Your task to perform on an android device: stop showing notifications on the lock screen Image 0: 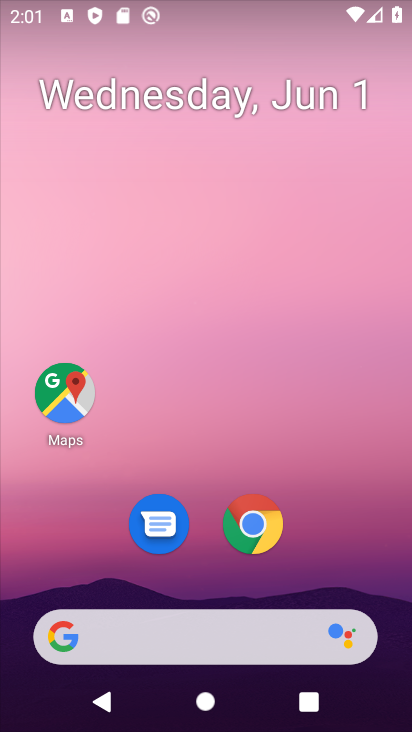
Step 0: drag from (317, 551) to (286, 37)
Your task to perform on an android device: stop showing notifications on the lock screen Image 1: 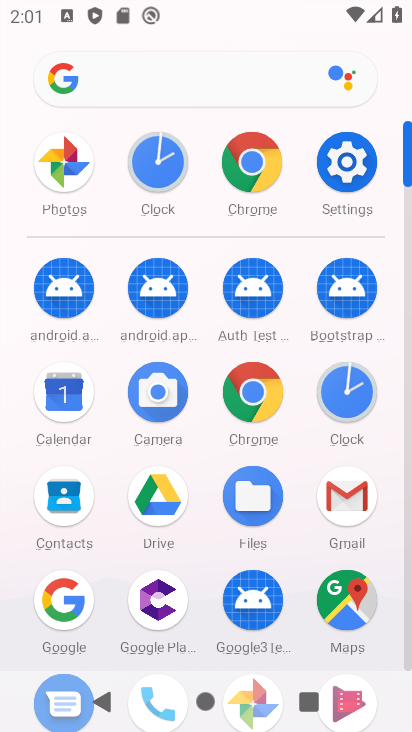
Step 1: click (343, 150)
Your task to perform on an android device: stop showing notifications on the lock screen Image 2: 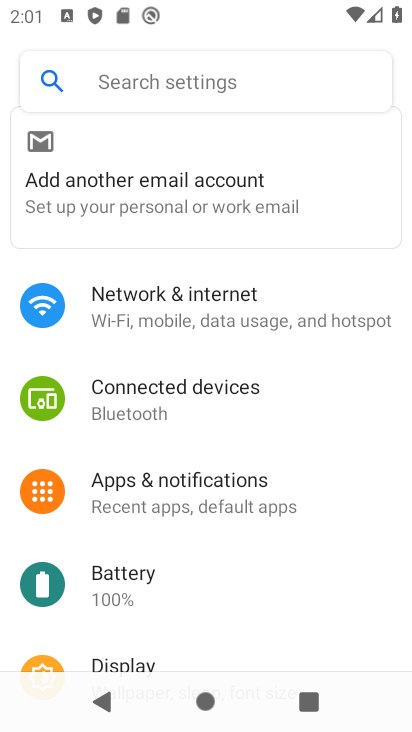
Step 2: click (256, 491)
Your task to perform on an android device: stop showing notifications on the lock screen Image 3: 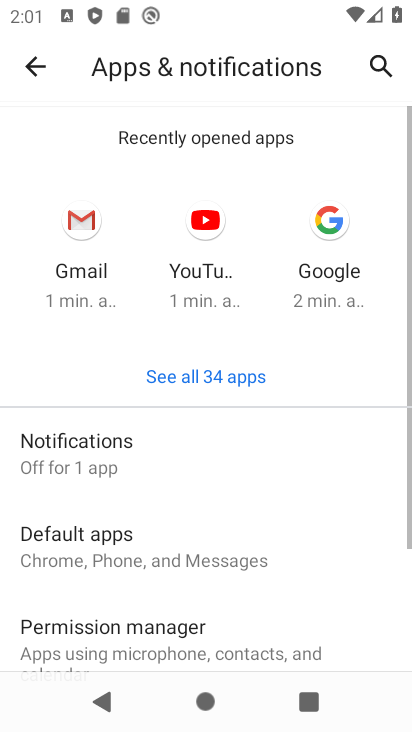
Step 3: click (226, 464)
Your task to perform on an android device: stop showing notifications on the lock screen Image 4: 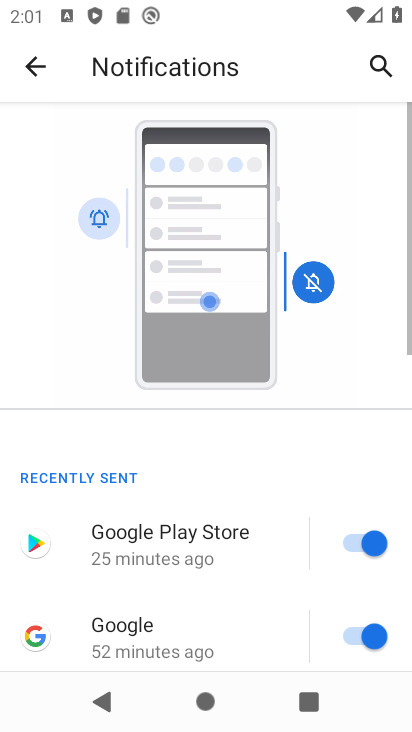
Step 4: drag from (288, 498) to (327, 0)
Your task to perform on an android device: stop showing notifications on the lock screen Image 5: 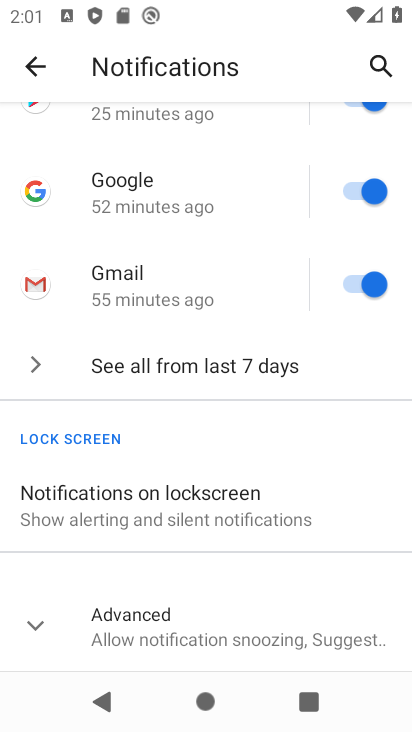
Step 5: click (177, 508)
Your task to perform on an android device: stop showing notifications on the lock screen Image 6: 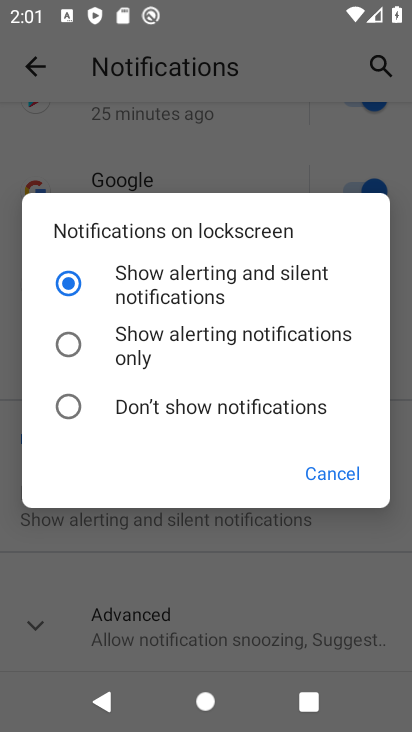
Step 6: click (74, 402)
Your task to perform on an android device: stop showing notifications on the lock screen Image 7: 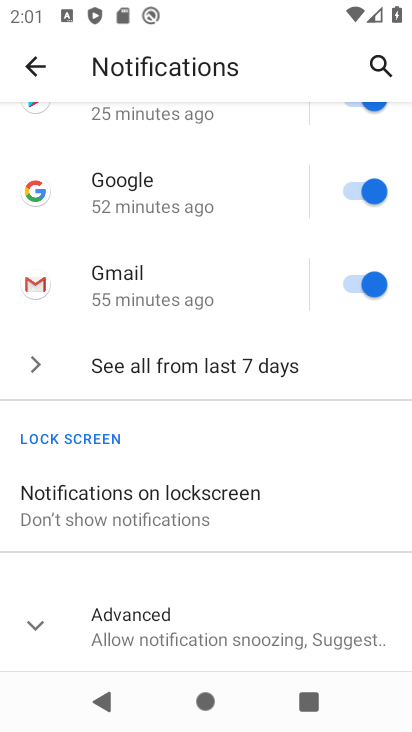
Step 7: task complete